Your task to perform on an android device: Open Chrome and go to settings Image 0: 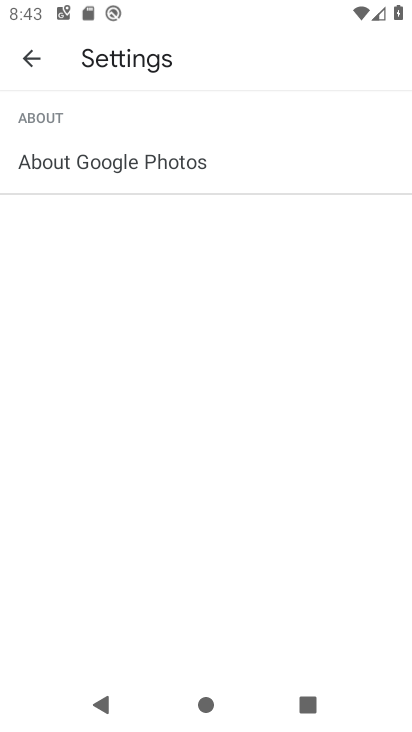
Step 0: press home button
Your task to perform on an android device: Open Chrome and go to settings Image 1: 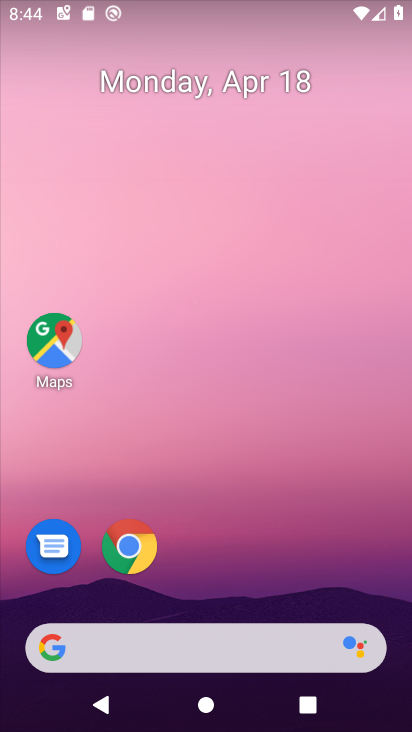
Step 1: drag from (362, 569) to (304, 171)
Your task to perform on an android device: Open Chrome and go to settings Image 2: 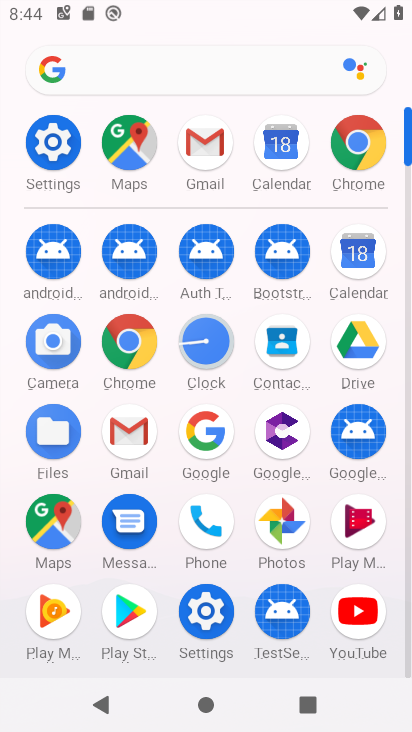
Step 2: click (148, 327)
Your task to perform on an android device: Open Chrome and go to settings Image 3: 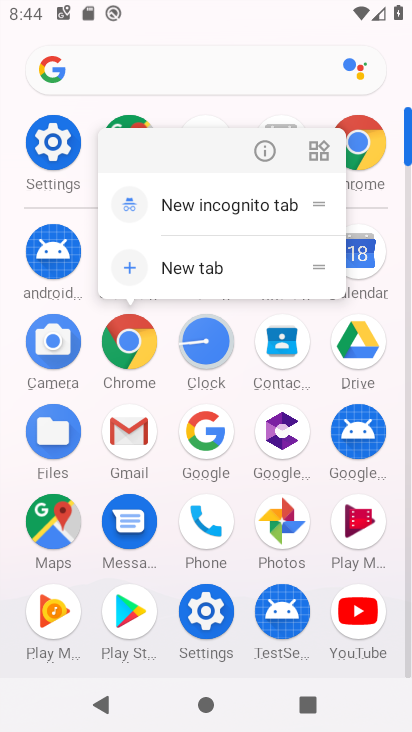
Step 3: click (148, 327)
Your task to perform on an android device: Open Chrome and go to settings Image 4: 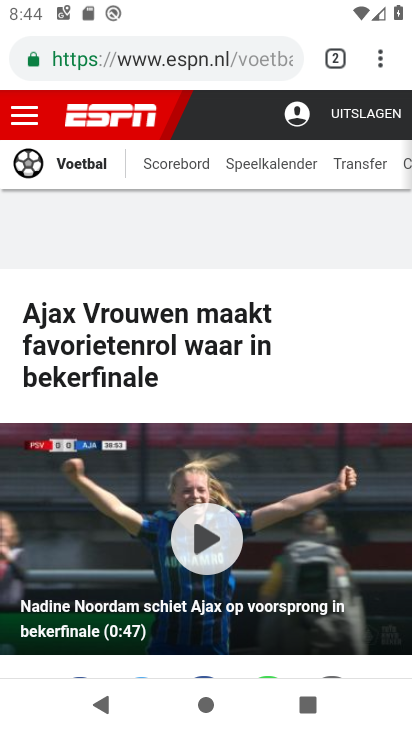
Step 4: task complete